Your task to perform on an android device: Open the calendar app, open the side menu, and click the "Day" option Image 0: 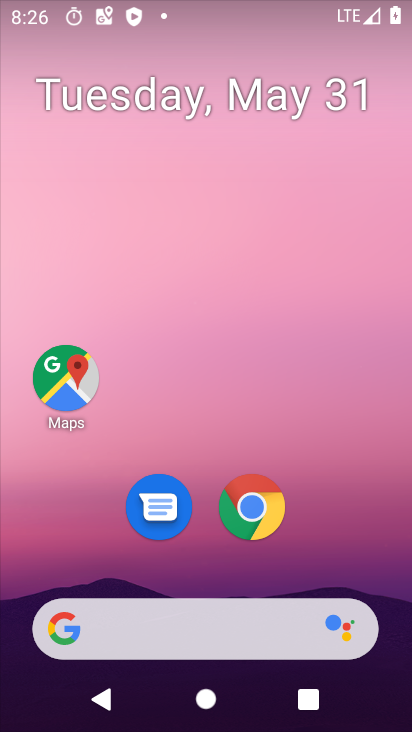
Step 0: press home button
Your task to perform on an android device: Open the calendar app, open the side menu, and click the "Day" option Image 1: 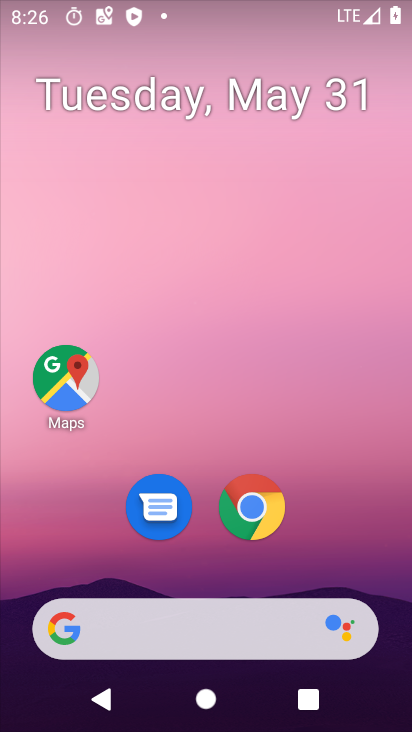
Step 1: drag from (1, 728) to (178, 226)
Your task to perform on an android device: Open the calendar app, open the side menu, and click the "Day" option Image 2: 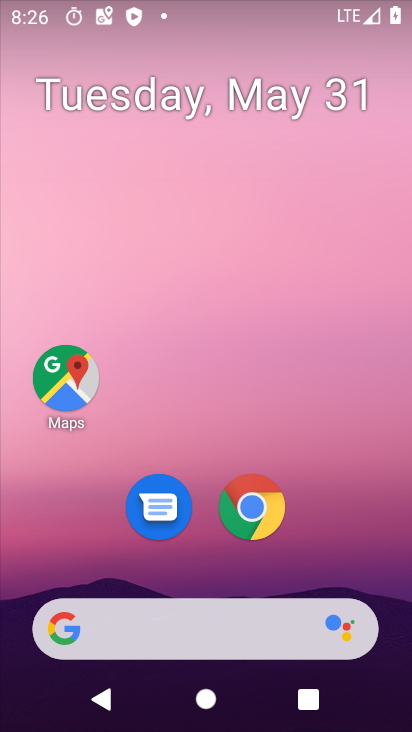
Step 2: drag from (40, 585) to (232, 155)
Your task to perform on an android device: Open the calendar app, open the side menu, and click the "Day" option Image 3: 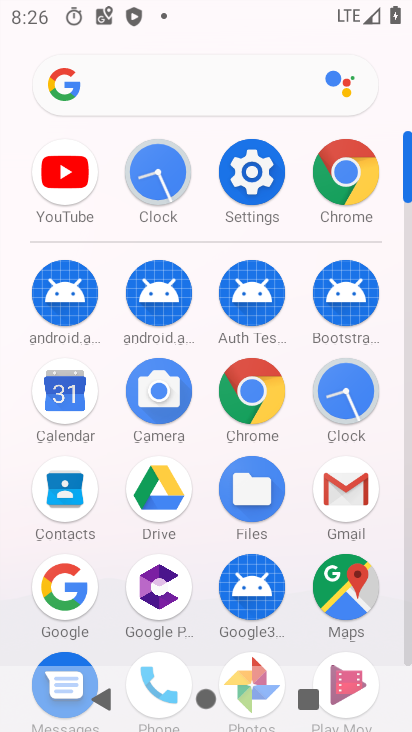
Step 3: click (64, 396)
Your task to perform on an android device: Open the calendar app, open the side menu, and click the "Day" option Image 4: 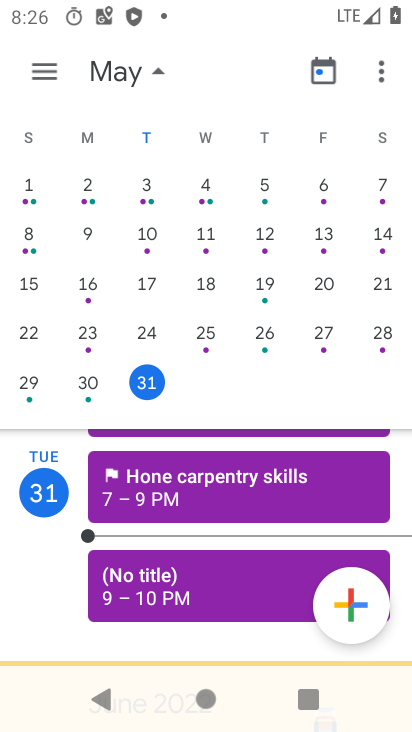
Step 4: click (59, 68)
Your task to perform on an android device: Open the calendar app, open the side menu, and click the "Day" option Image 5: 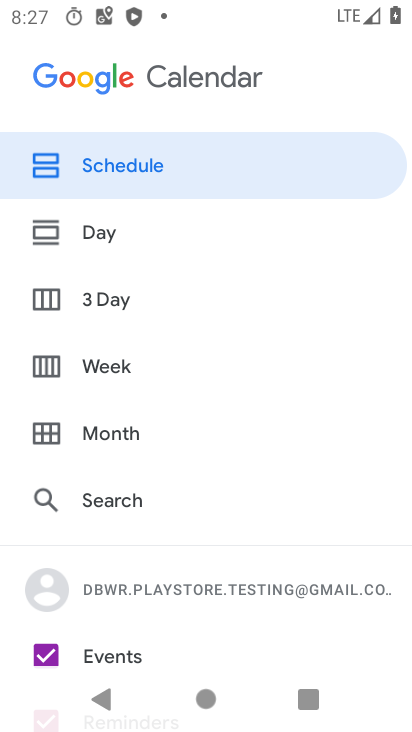
Step 5: click (62, 247)
Your task to perform on an android device: Open the calendar app, open the side menu, and click the "Day" option Image 6: 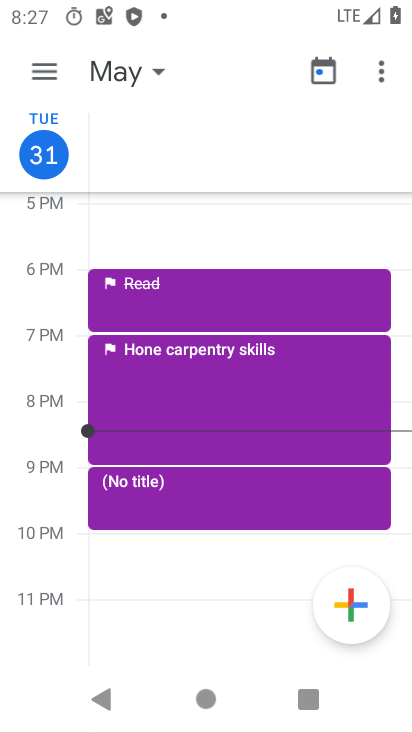
Step 6: task complete